Your task to perform on an android device: open app "Upside-Cash back on gas & food" (install if not already installed), go to login, and select forgot password Image 0: 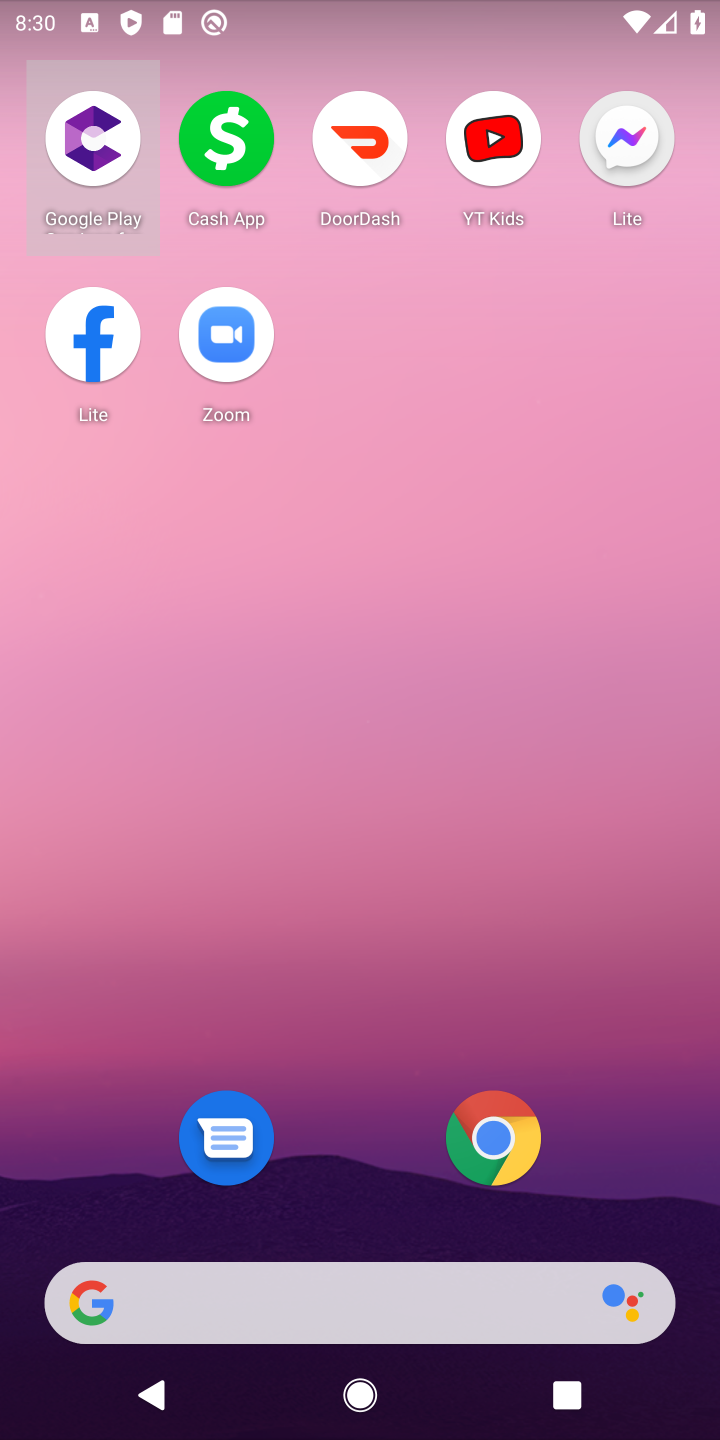
Step 0: drag from (360, 1222) to (435, 513)
Your task to perform on an android device: open app "Upside-Cash back on gas & food" (install if not already installed), go to login, and select forgot password Image 1: 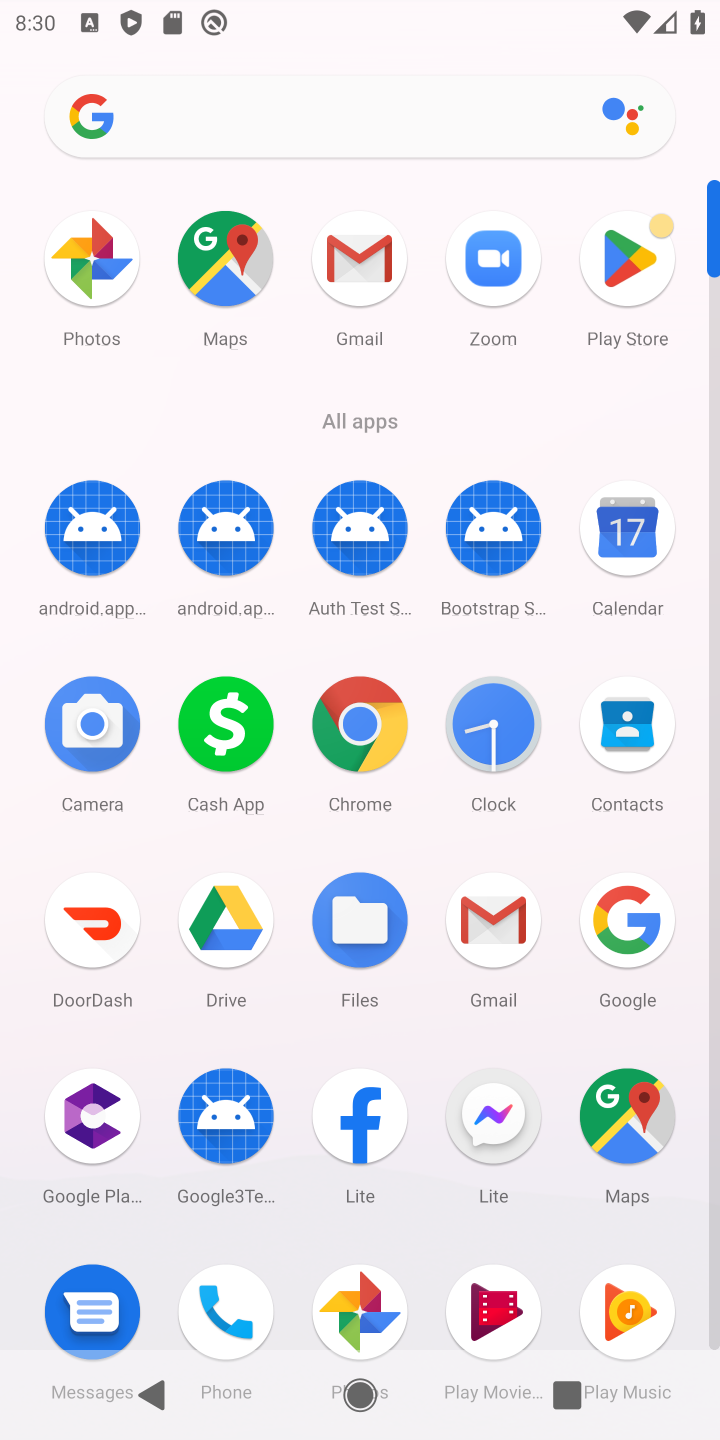
Step 1: click (654, 246)
Your task to perform on an android device: open app "Upside-Cash back on gas & food" (install if not already installed), go to login, and select forgot password Image 2: 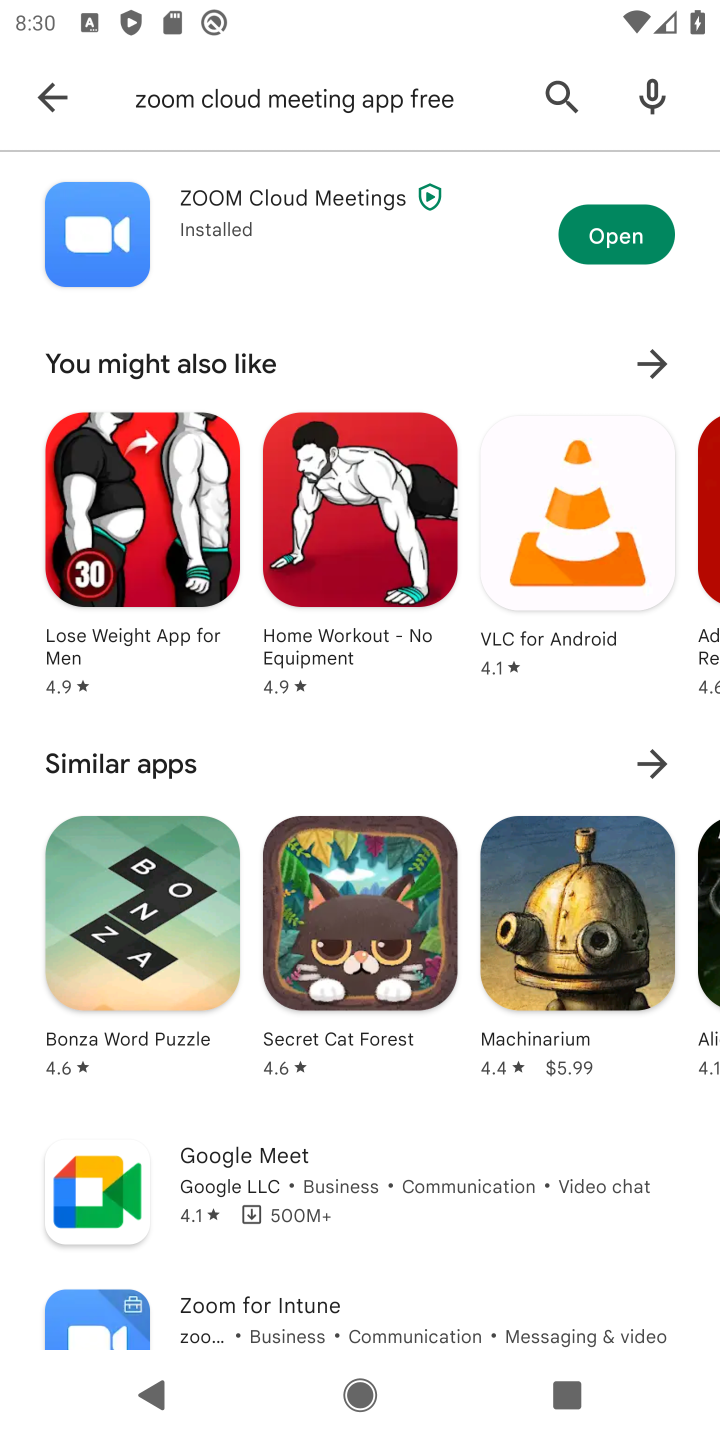
Step 2: click (48, 92)
Your task to perform on an android device: open app "Upside-Cash back on gas & food" (install if not already installed), go to login, and select forgot password Image 3: 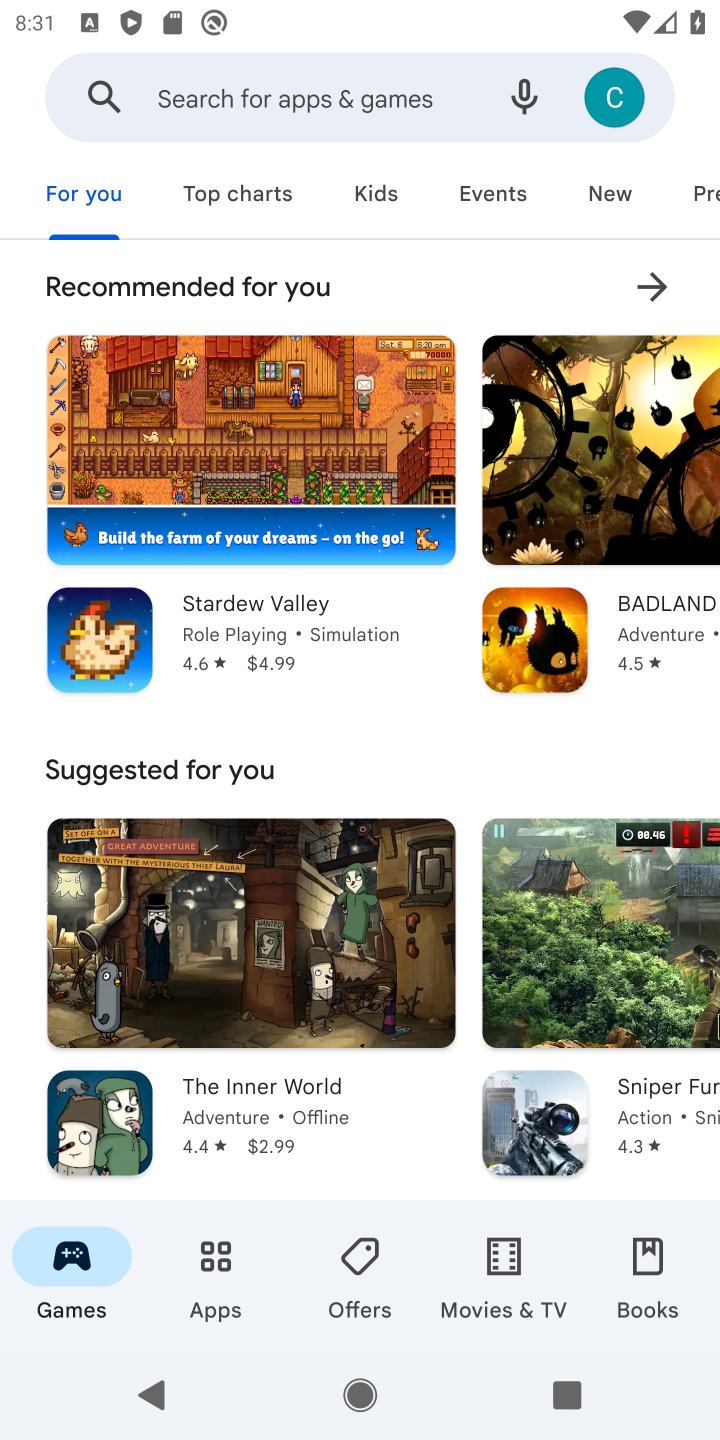
Step 3: click (296, 75)
Your task to perform on an android device: open app "Upside-Cash back on gas & food" (install if not already installed), go to login, and select forgot password Image 4: 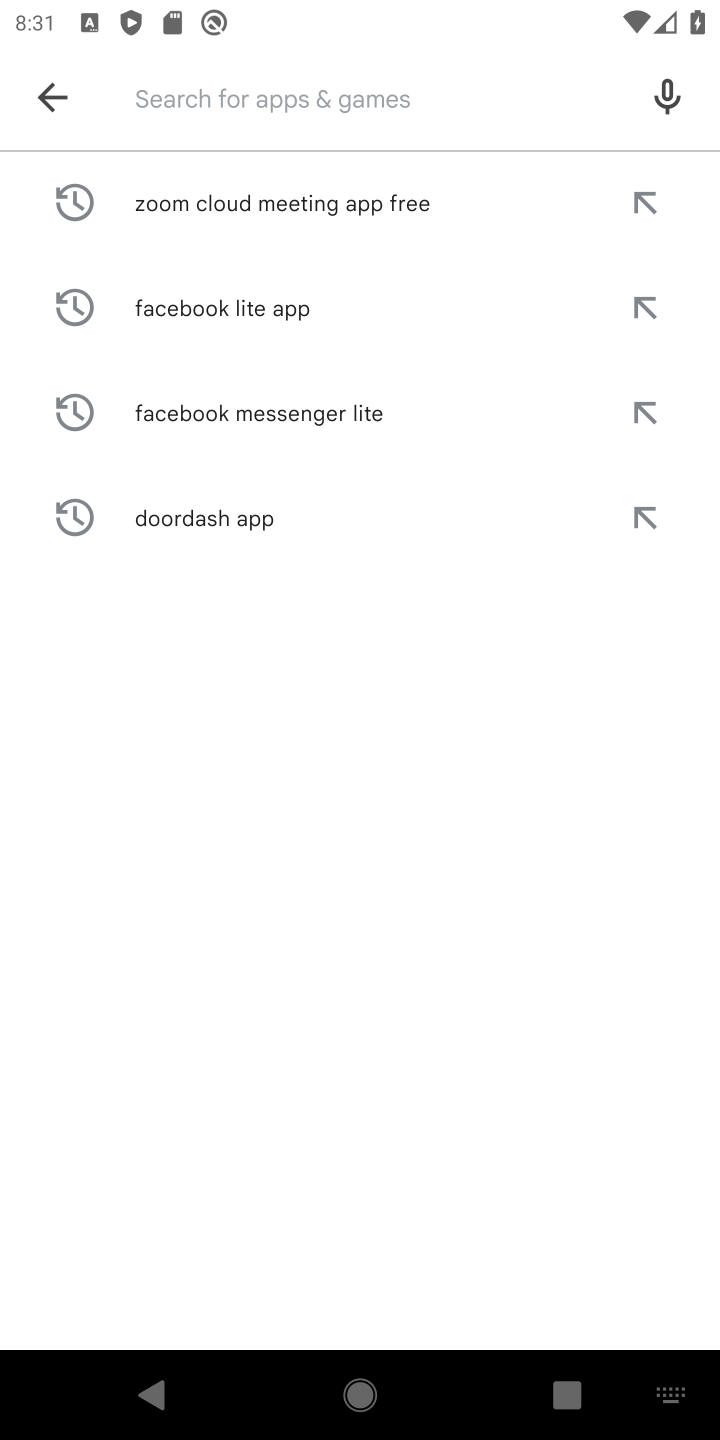
Step 4: type "Upside-Cash back on gas & food "
Your task to perform on an android device: open app "Upside-Cash back on gas & food" (install if not already installed), go to login, and select forgot password Image 5: 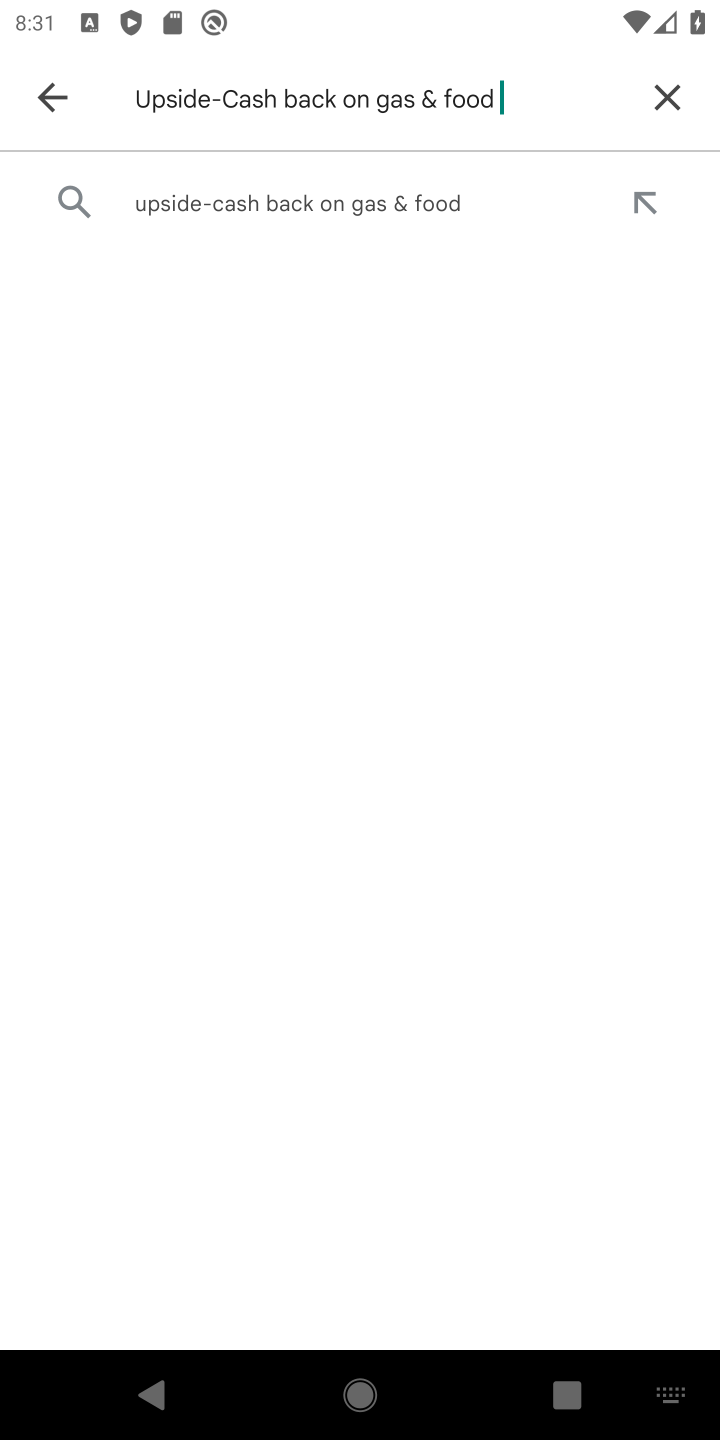
Step 5: click (222, 212)
Your task to perform on an android device: open app "Upside-Cash back on gas & food" (install if not already installed), go to login, and select forgot password Image 6: 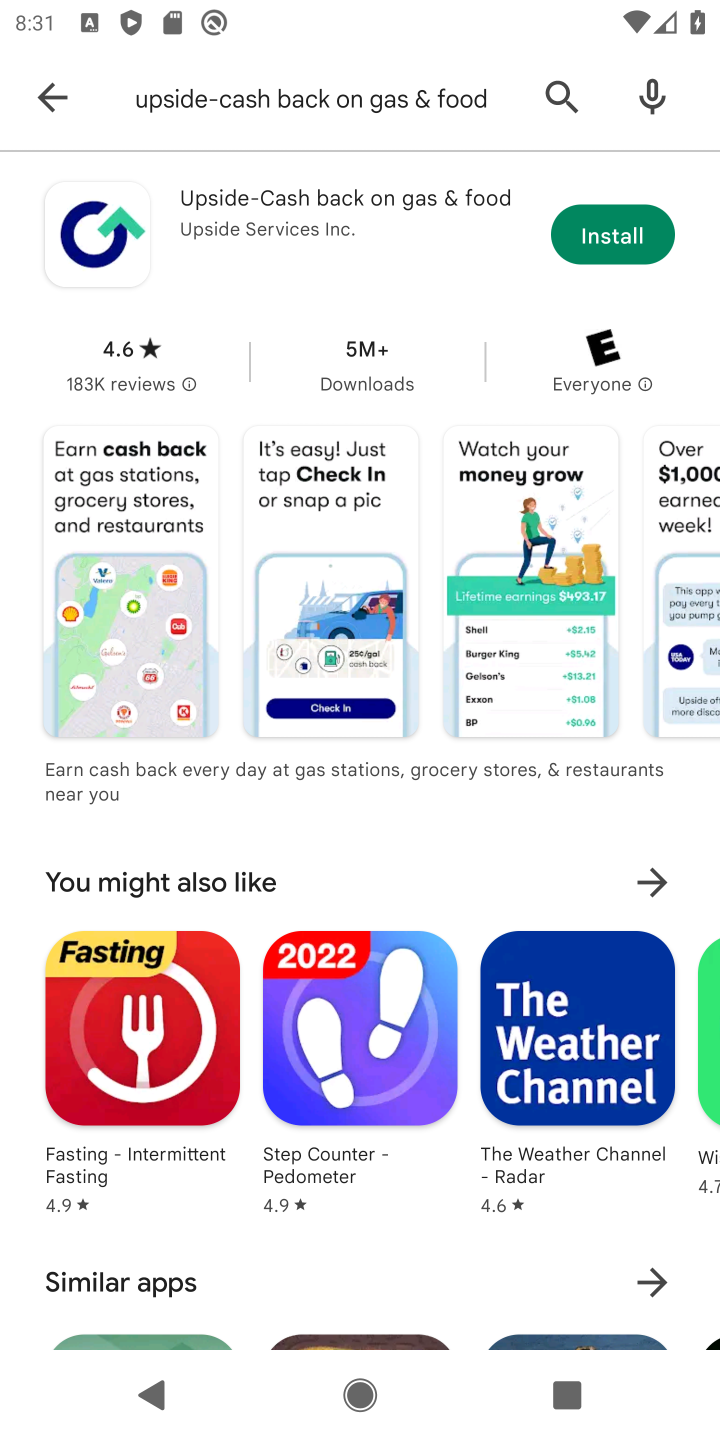
Step 6: click (643, 224)
Your task to perform on an android device: open app "Upside-Cash back on gas & food" (install if not already installed), go to login, and select forgot password Image 7: 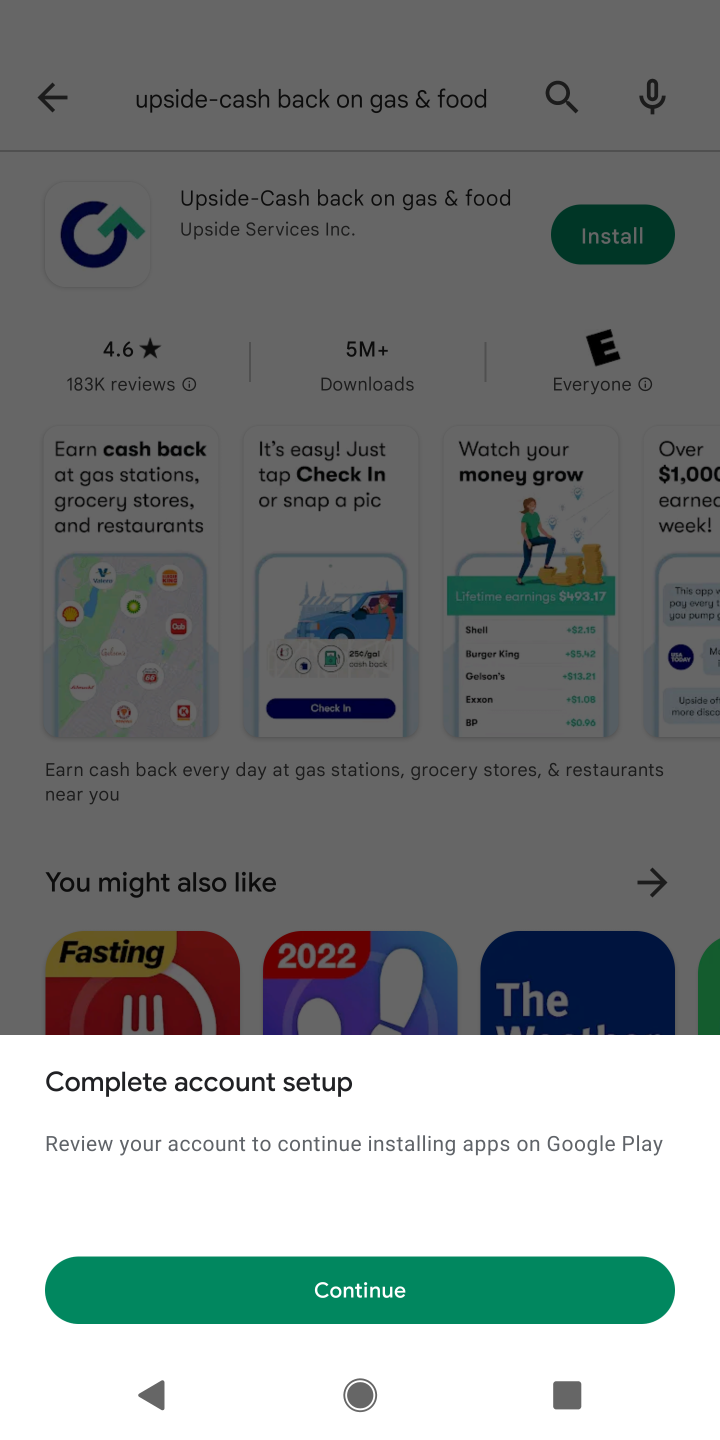
Step 7: task complete